Your task to perform on an android device: Open maps Image 0: 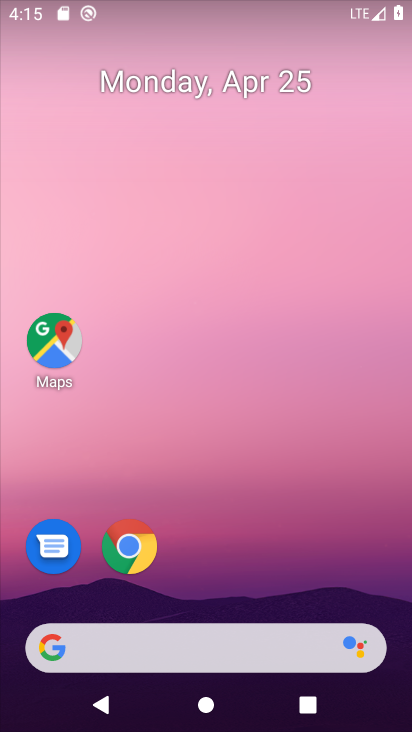
Step 0: click (38, 343)
Your task to perform on an android device: Open maps Image 1: 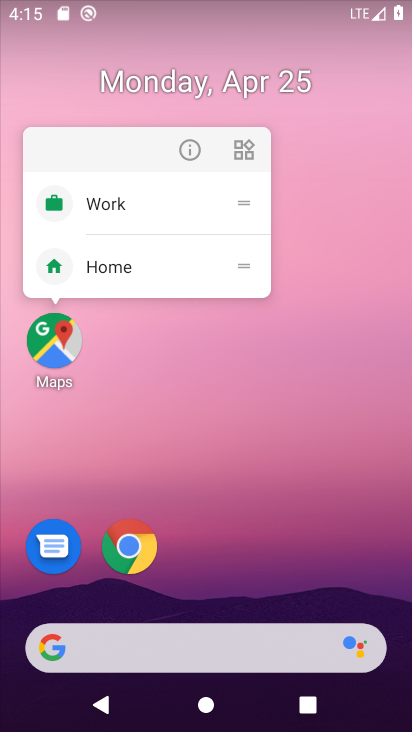
Step 1: click (37, 343)
Your task to perform on an android device: Open maps Image 2: 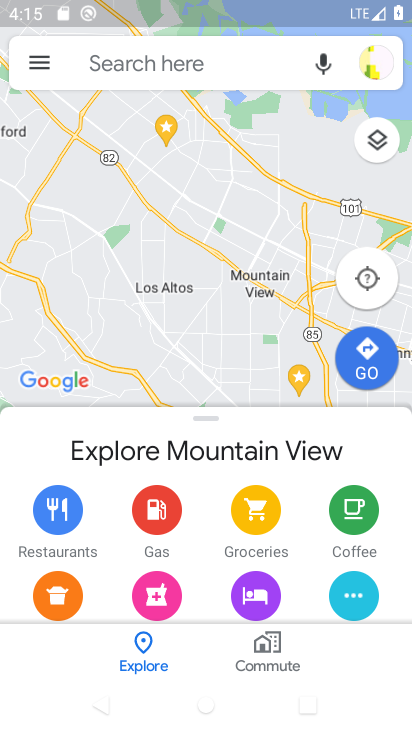
Step 2: task complete